Your task to perform on an android device: Go to ESPN.com Image 0: 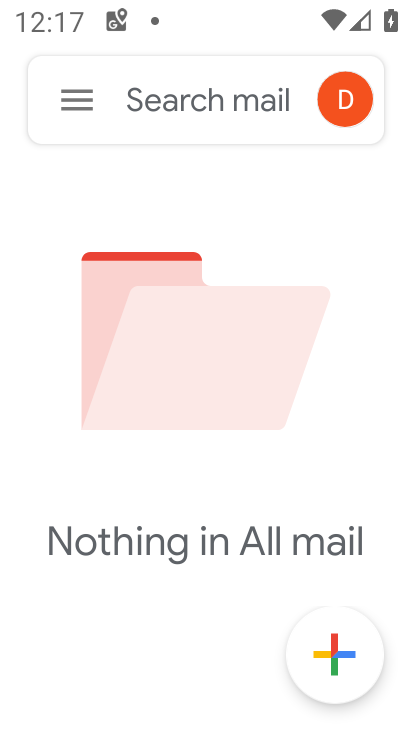
Step 0: press home button
Your task to perform on an android device: Go to ESPN.com Image 1: 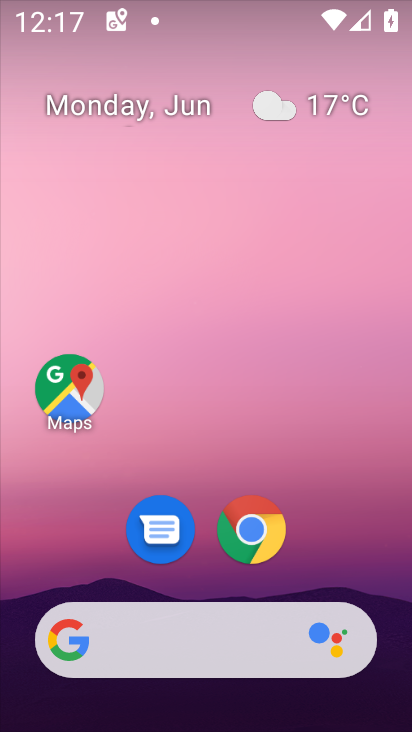
Step 1: drag from (312, 450) to (325, 18)
Your task to perform on an android device: Go to ESPN.com Image 2: 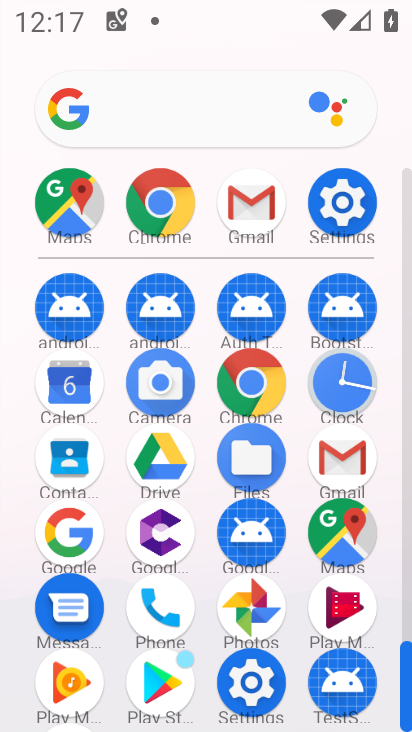
Step 2: click (157, 202)
Your task to perform on an android device: Go to ESPN.com Image 3: 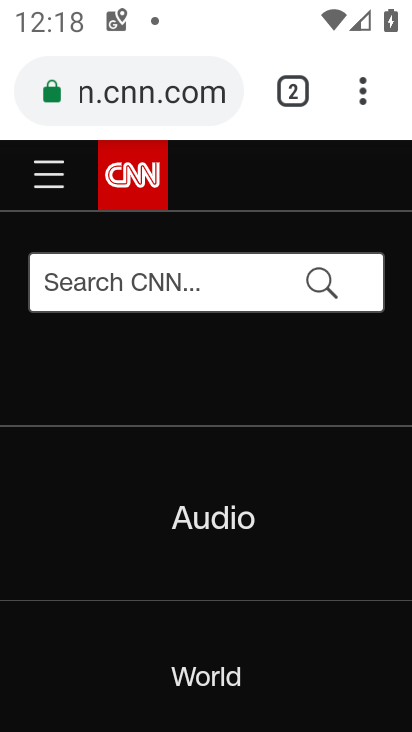
Step 3: click (182, 100)
Your task to perform on an android device: Go to ESPN.com Image 4: 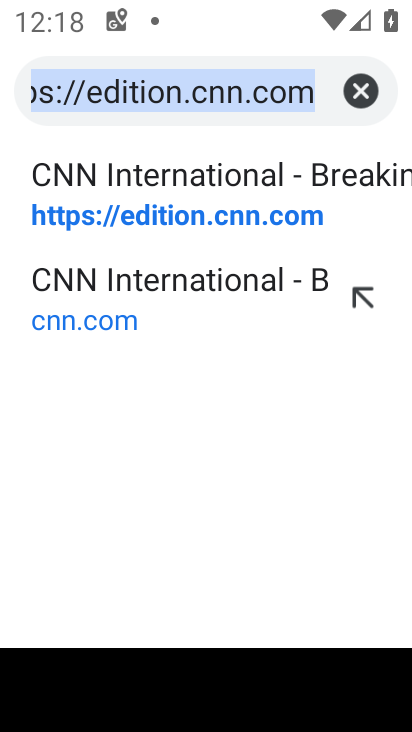
Step 4: click (358, 99)
Your task to perform on an android device: Go to ESPN.com Image 5: 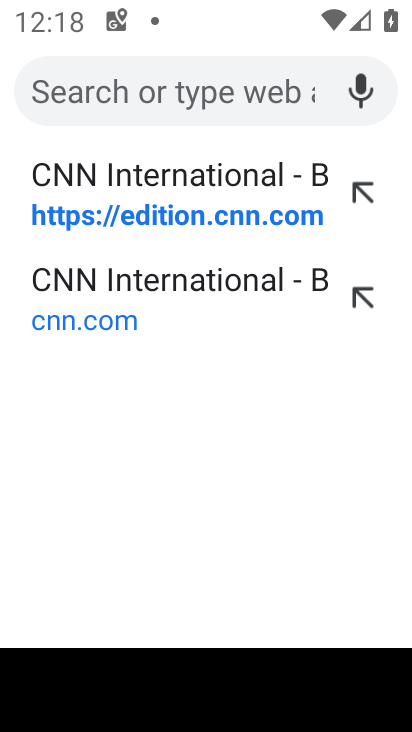
Step 5: type "espn"
Your task to perform on an android device: Go to ESPN.com Image 6: 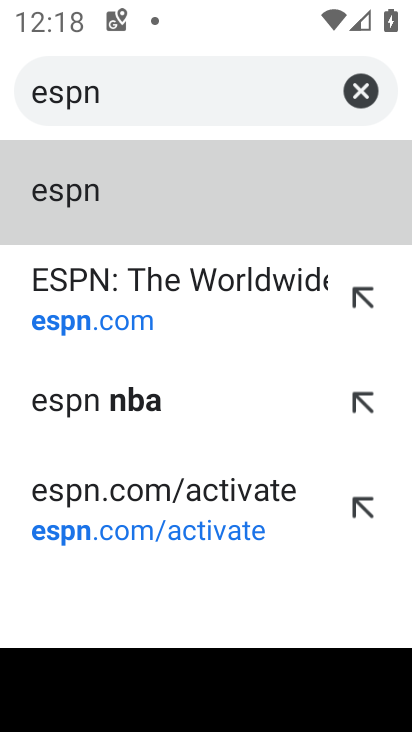
Step 6: click (99, 321)
Your task to perform on an android device: Go to ESPN.com Image 7: 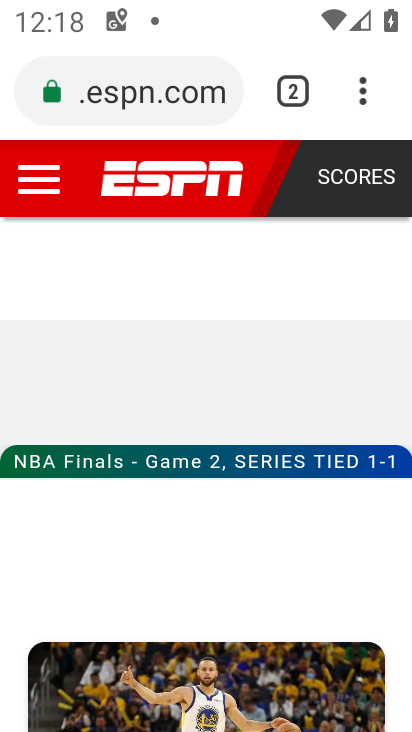
Step 7: task complete